Your task to perform on an android device: open wifi settings Image 0: 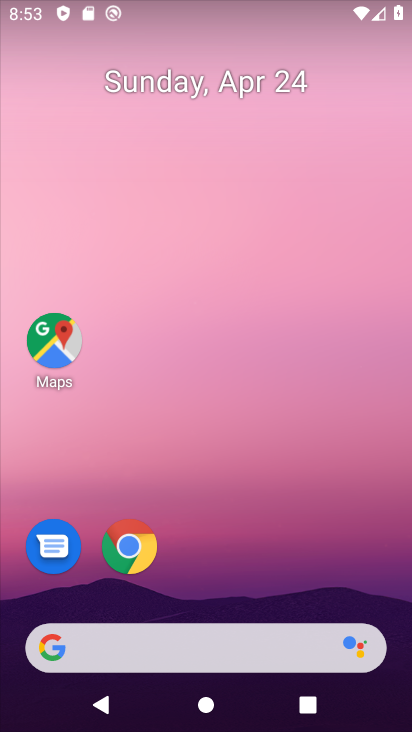
Step 0: click (302, 219)
Your task to perform on an android device: open wifi settings Image 1: 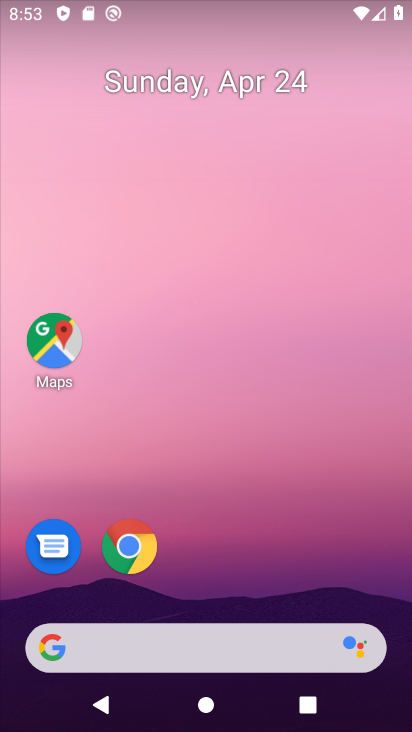
Step 1: drag from (200, 582) to (255, 278)
Your task to perform on an android device: open wifi settings Image 2: 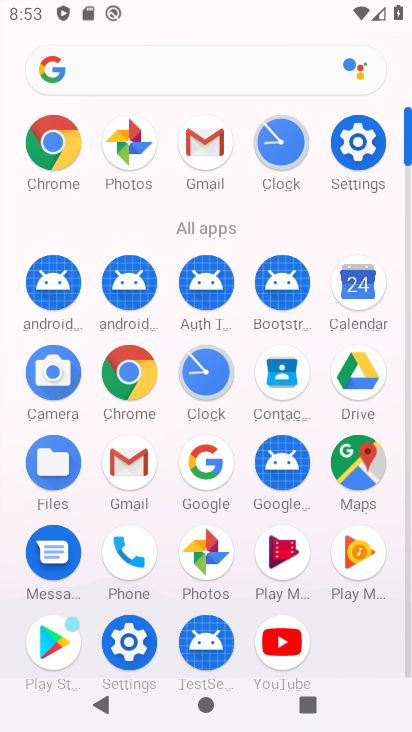
Step 2: click (351, 143)
Your task to perform on an android device: open wifi settings Image 3: 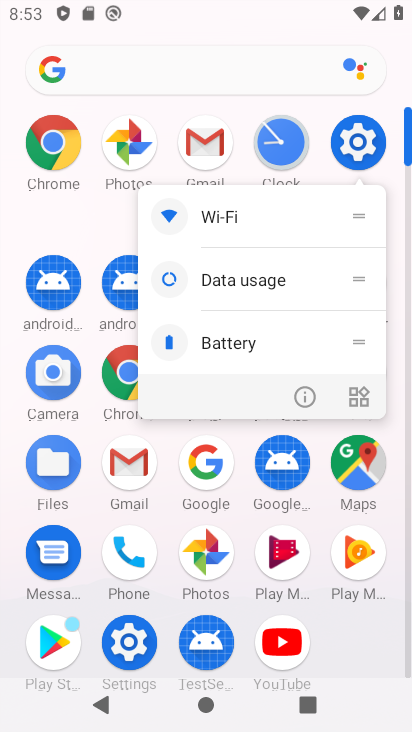
Step 3: click (351, 143)
Your task to perform on an android device: open wifi settings Image 4: 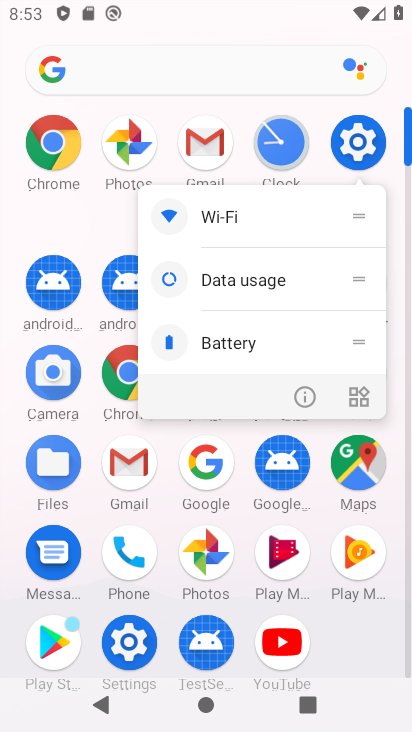
Step 4: click (351, 143)
Your task to perform on an android device: open wifi settings Image 5: 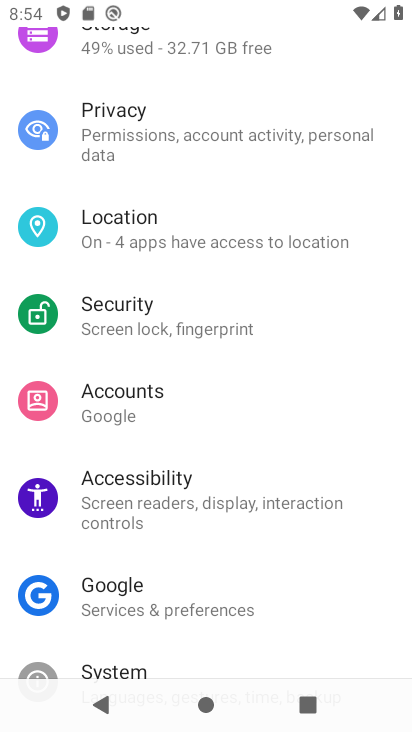
Step 5: drag from (238, 106) to (219, 635)
Your task to perform on an android device: open wifi settings Image 6: 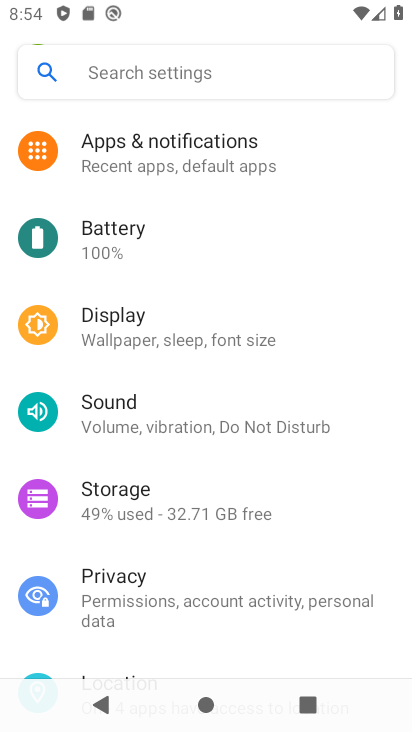
Step 6: drag from (215, 134) to (197, 668)
Your task to perform on an android device: open wifi settings Image 7: 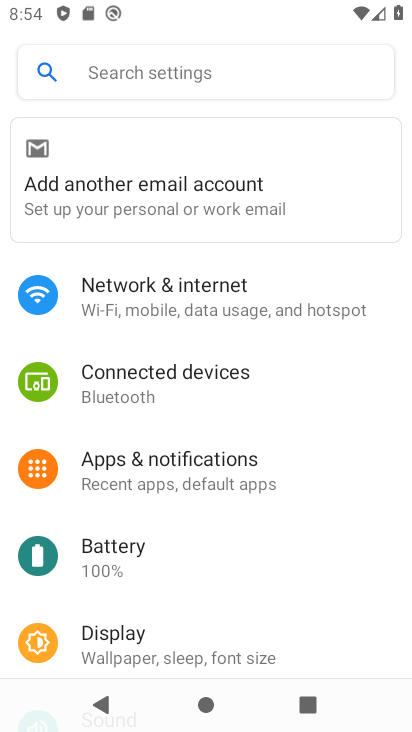
Step 7: click (188, 293)
Your task to perform on an android device: open wifi settings Image 8: 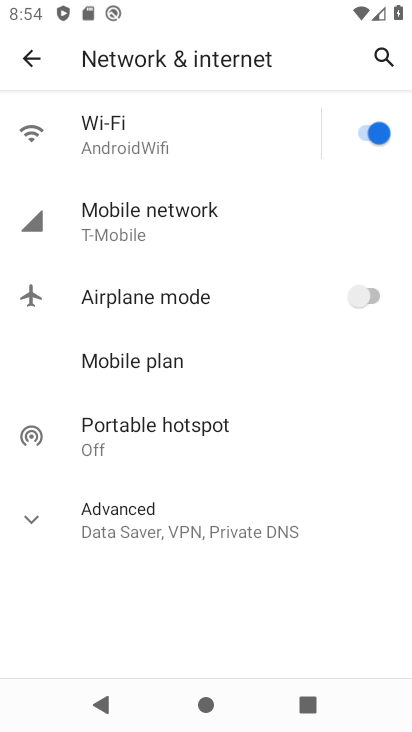
Step 8: click (192, 133)
Your task to perform on an android device: open wifi settings Image 9: 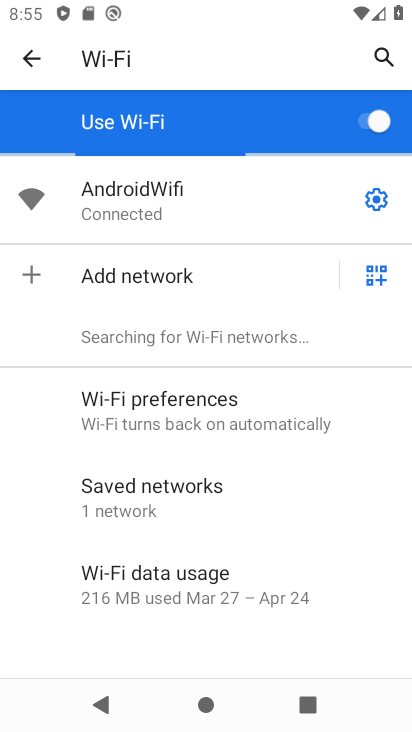
Step 9: task complete